Your task to perform on an android device: Go to privacy settings Image 0: 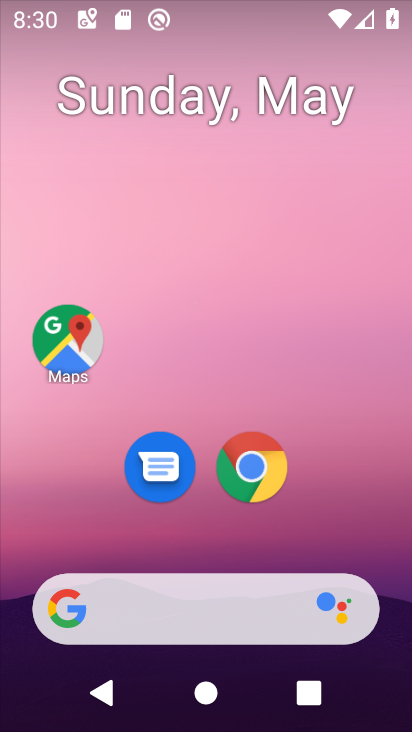
Step 0: drag from (308, 509) to (336, 142)
Your task to perform on an android device: Go to privacy settings Image 1: 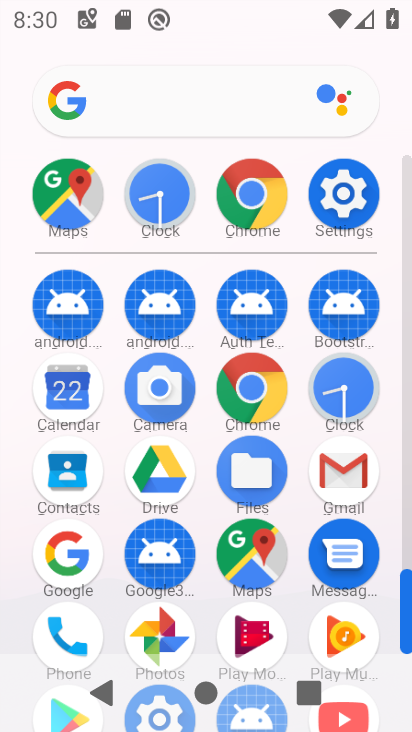
Step 1: click (343, 191)
Your task to perform on an android device: Go to privacy settings Image 2: 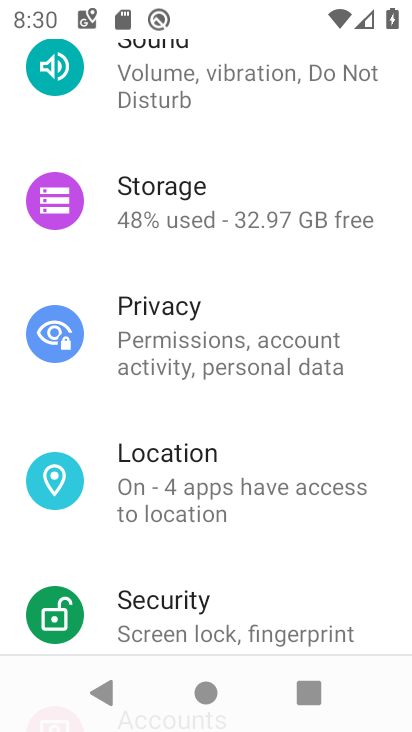
Step 2: click (205, 337)
Your task to perform on an android device: Go to privacy settings Image 3: 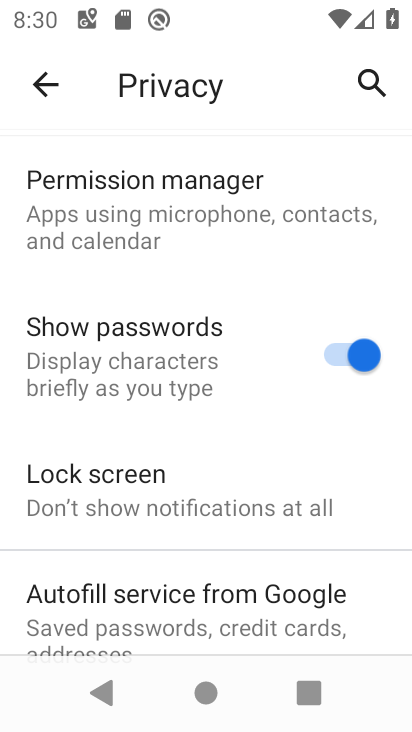
Step 3: task complete